Your task to perform on an android device: Open CNN.com Image 0: 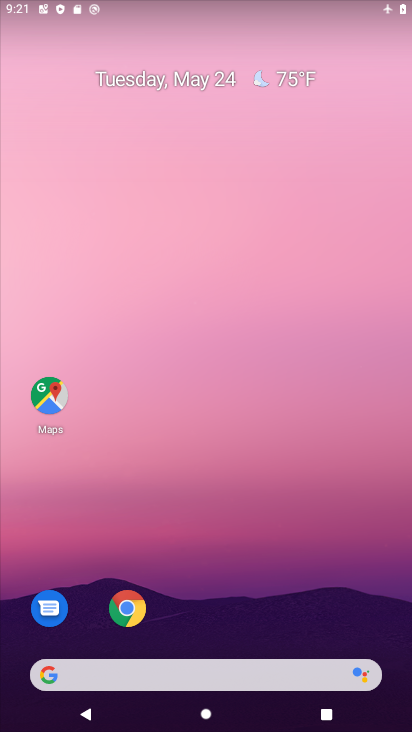
Step 0: click (121, 618)
Your task to perform on an android device: Open CNN.com Image 1: 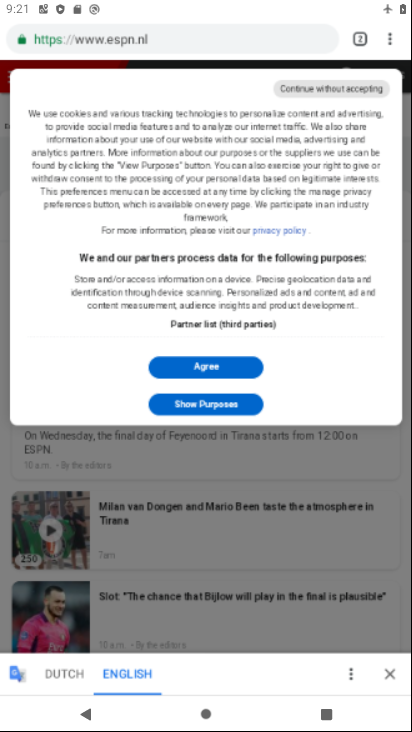
Step 1: click (365, 42)
Your task to perform on an android device: Open CNN.com Image 2: 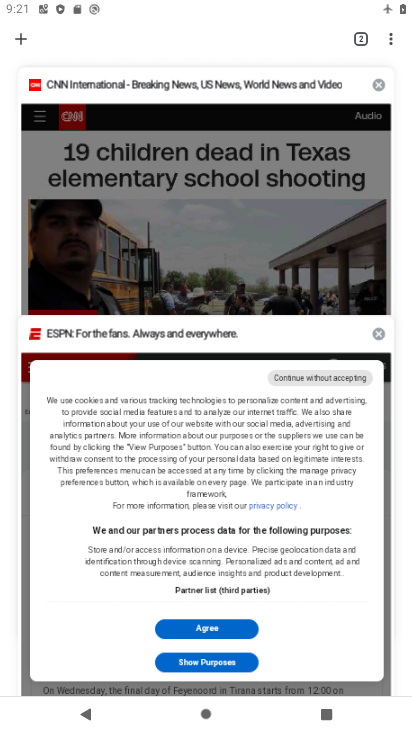
Step 2: click (95, 77)
Your task to perform on an android device: Open CNN.com Image 3: 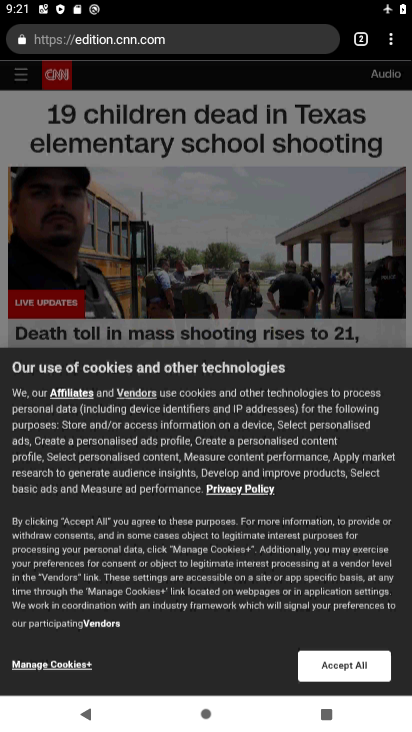
Step 3: task complete